Your task to perform on an android device: all mails in gmail Image 0: 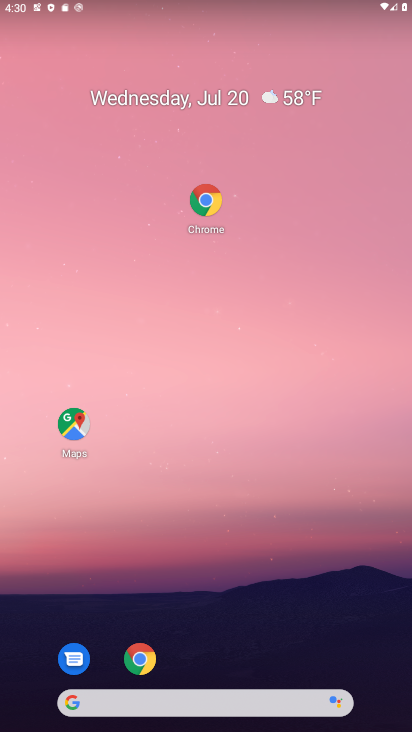
Step 0: drag from (228, 569) to (191, 275)
Your task to perform on an android device: all mails in gmail Image 1: 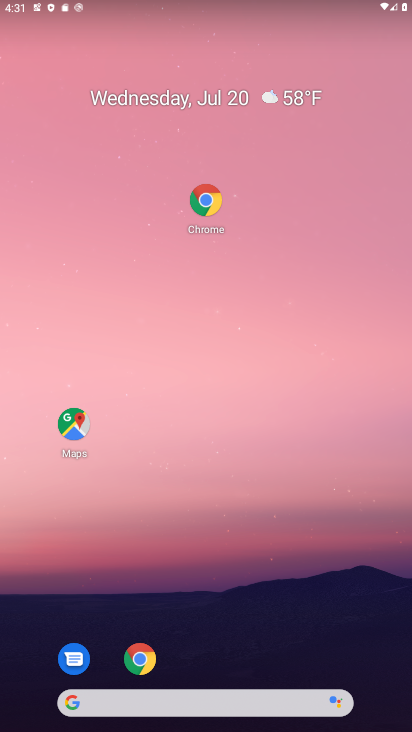
Step 1: click (224, 438)
Your task to perform on an android device: all mails in gmail Image 2: 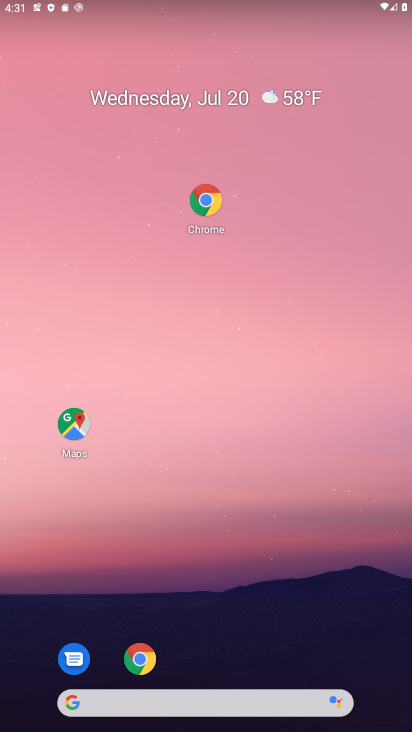
Step 2: drag from (214, 525) to (147, 64)
Your task to perform on an android device: all mails in gmail Image 3: 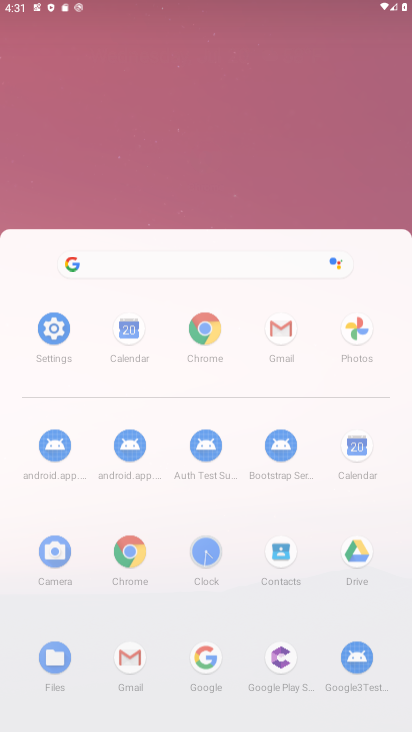
Step 3: drag from (174, 534) to (164, 115)
Your task to perform on an android device: all mails in gmail Image 4: 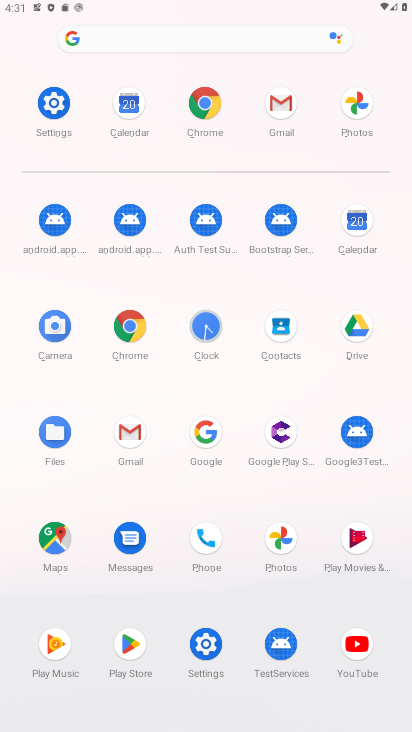
Step 4: drag from (231, 346) to (231, 32)
Your task to perform on an android device: all mails in gmail Image 5: 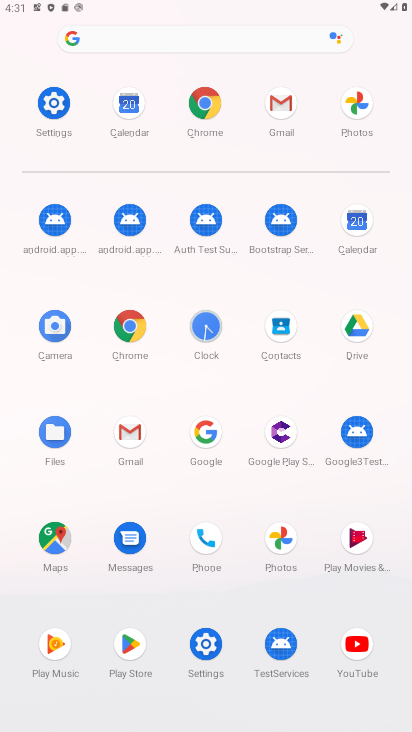
Step 5: click (125, 447)
Your task to perform on an android device: all mails in gmail Image 6: 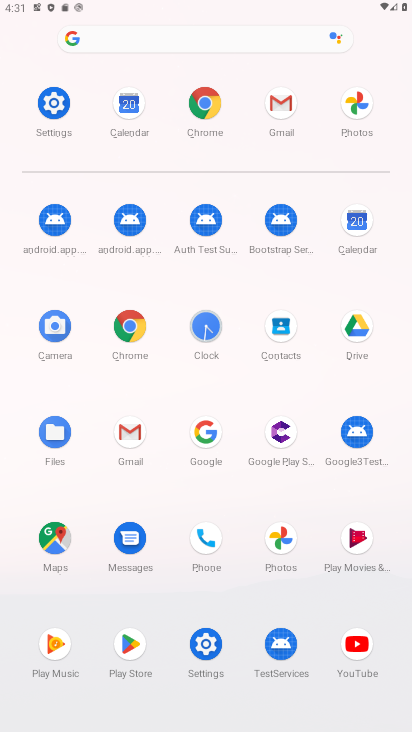
Step 6: click (126, 446)
Your task to perform on an android device: all mails in gmail Image 7: 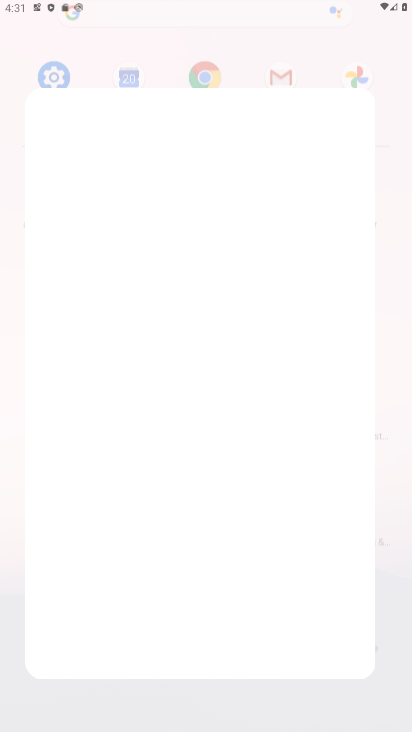
Step 7: click (131, 442)
Your task to perform on an android device: all mails in gmail Image 8: 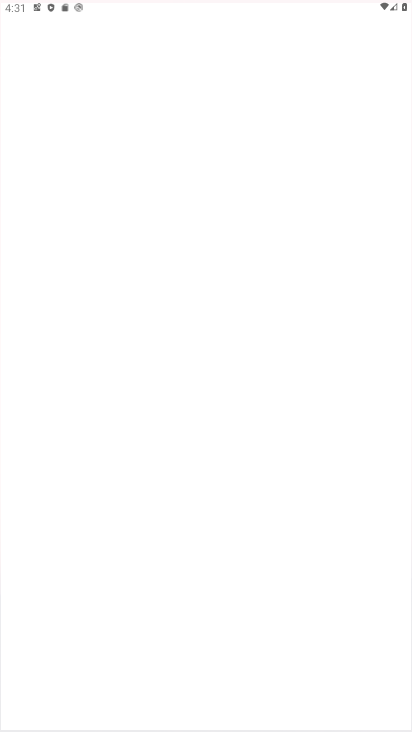
Step 8: click (133, 442)
Your task to perform on an android device: all mails in gmail Image 9: 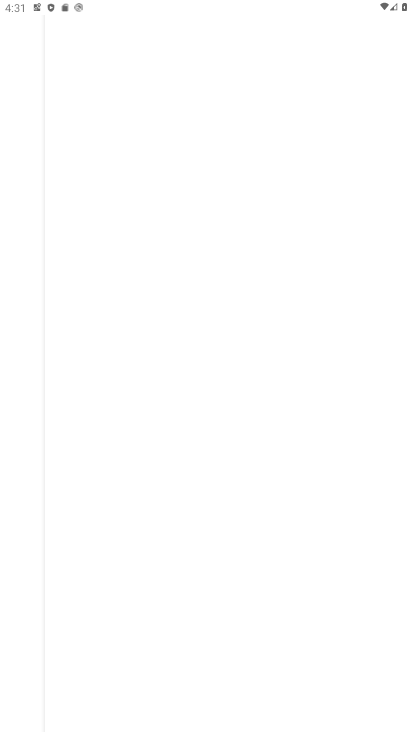
Step 9: click (134, 441)
Your task to perform on an android device: all mails in gmail Image 10: 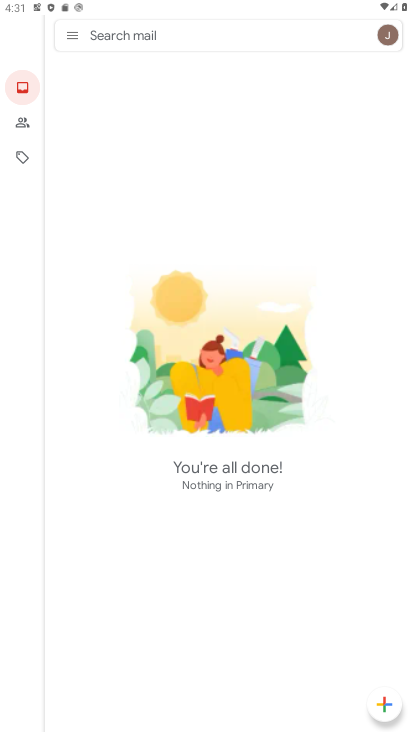
Step 10: click (72, 29)
Your task to perform on an android device: all mails in gmail Image 11: 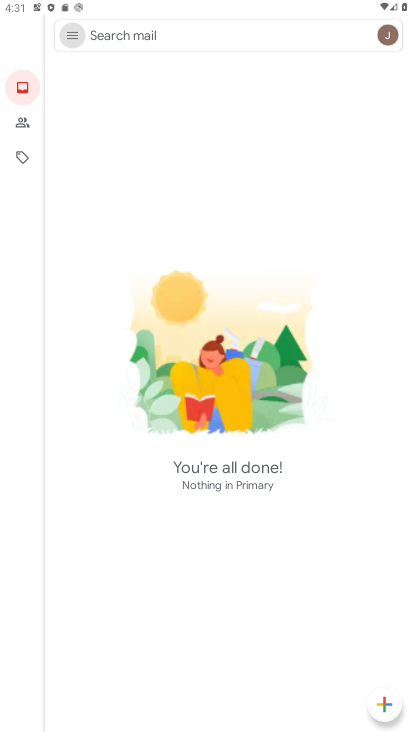
Step 11: click (75, 27)
Your task to perform on an android device: all mails in gmail Image 12: 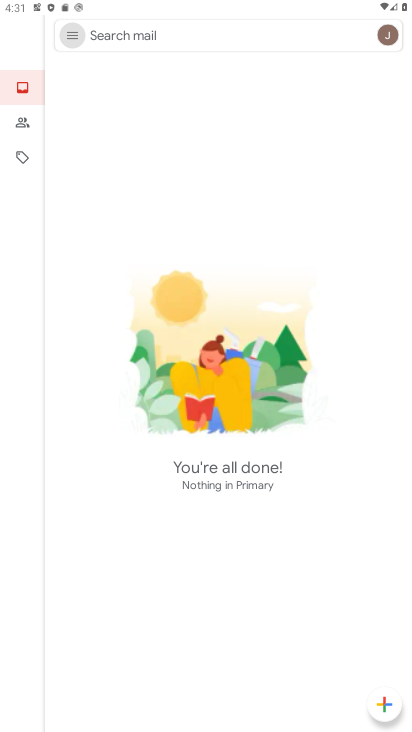
Step 12: click (75, 26)
Your task to perform on an android device: all mails in gmail Image 13: 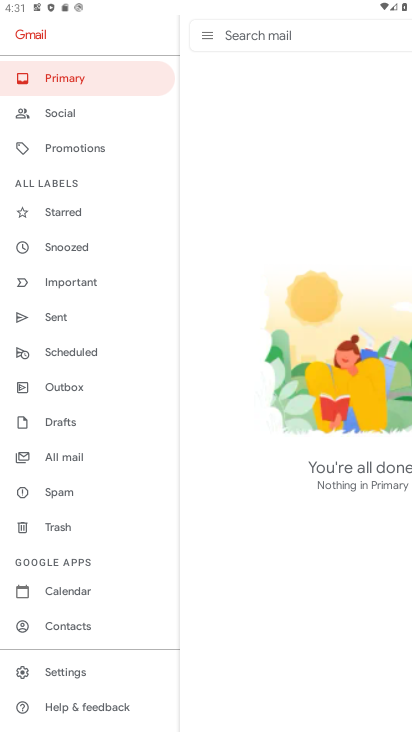
Step 13: click (61, 455)
Your task to perform on an android device: all mails in gmail Image 14: 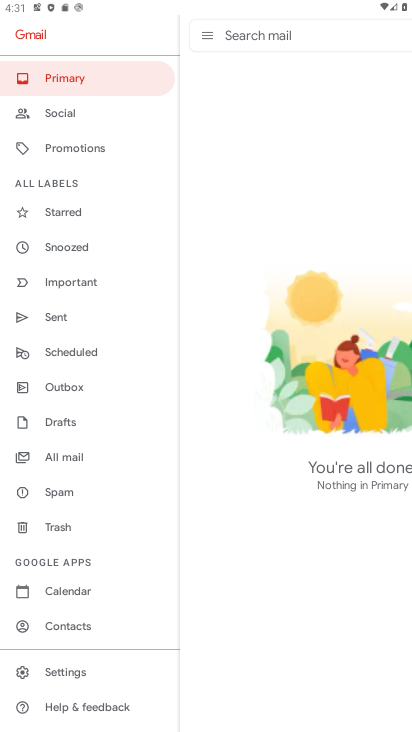
Step 14: click (61, 455)
Your task to perform on an android device: all mails in gmail Image 15: 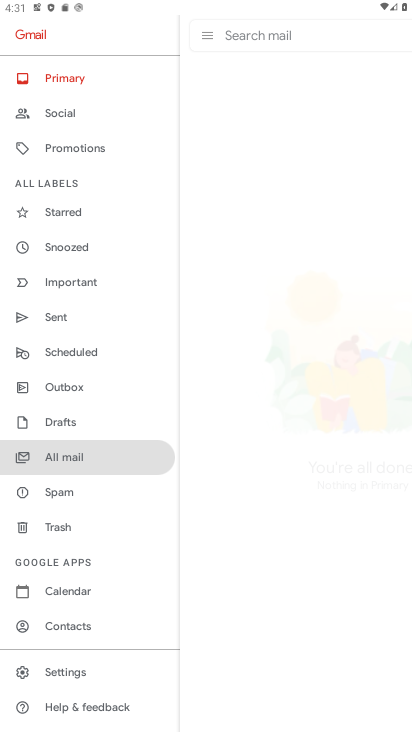
Step 15: click (61, 455)
Your task to perform on an android device: all mails in gmail Image 16: 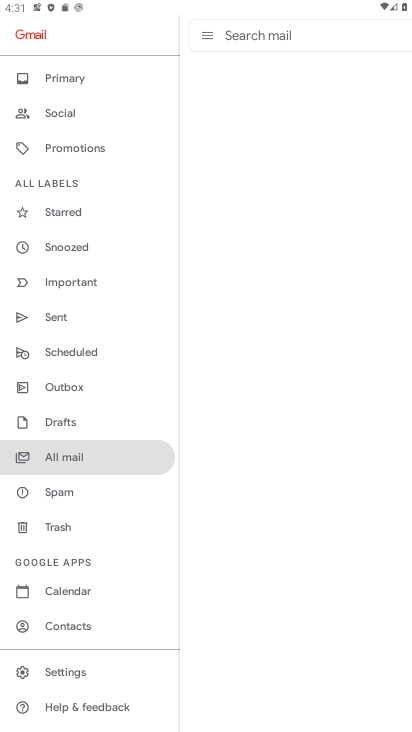
Step 16: click (61, 455)
Your task to perform on an android device: all mails in gmail Image 17: 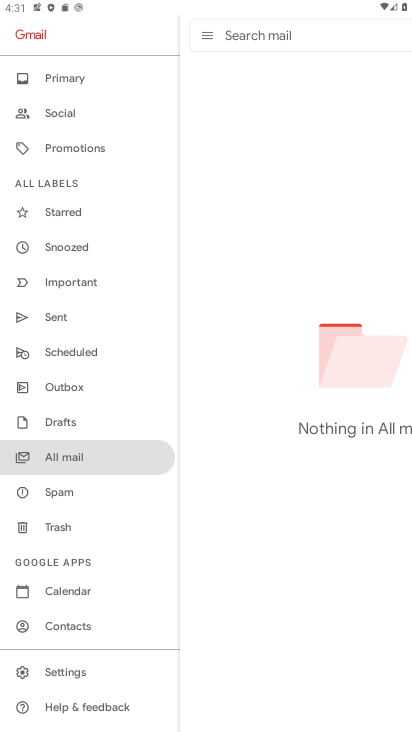
Step 17: task complete